Your task to perform on an android device: Open notification settings Image 0: 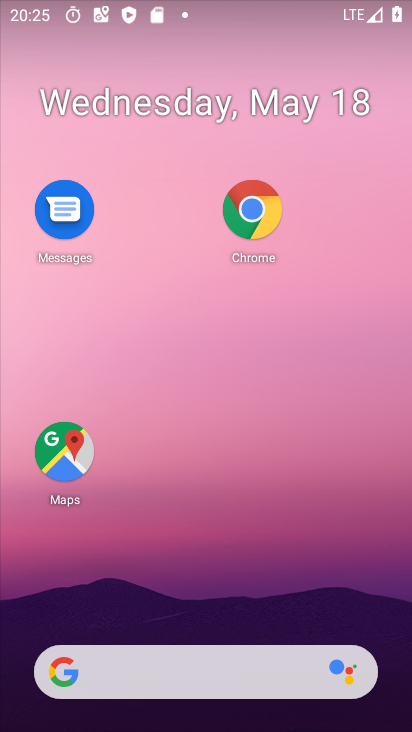
Step 0: drag from (173, 536) to (159, 145)
Your task to perform on an android device: Open notification settings Image 1: 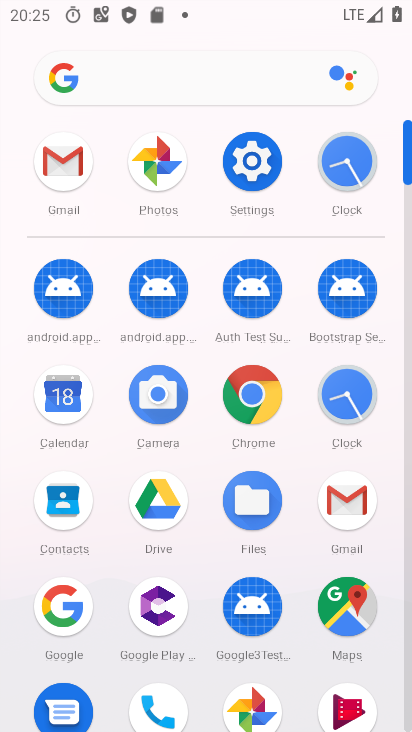
Step 1: click (259, 178)
Your task to perform on an android device: Open notification settings Image 2: 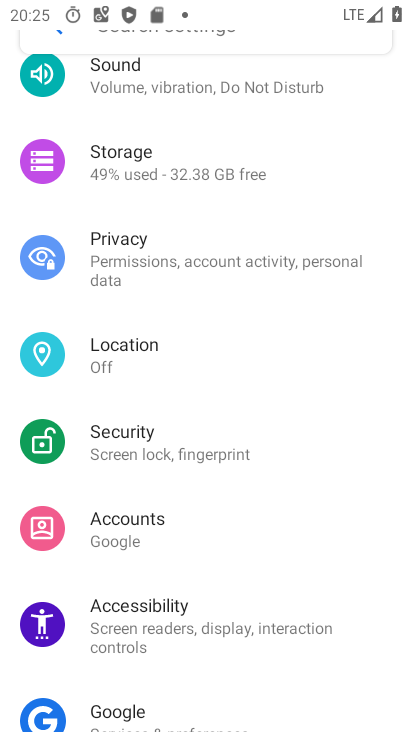
Step 2: drag from (259, 178) to (268, 676)
Your task to perform on an android device: Open notification settings Image 3: 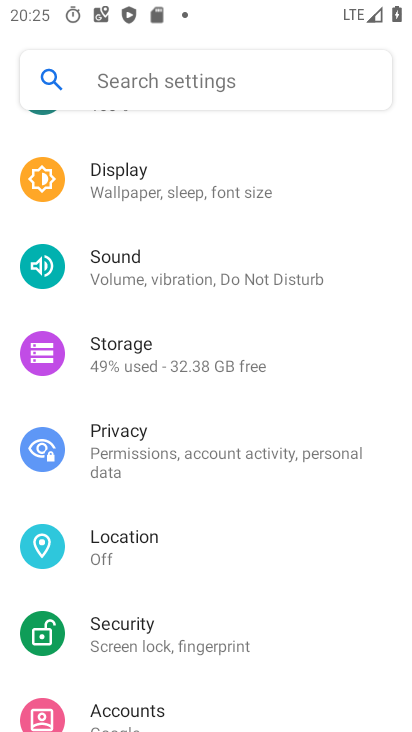
Step 3: drag from (162, 150) to (226, 614)
Your task to perform on an android device: Open notification settings Image 4: 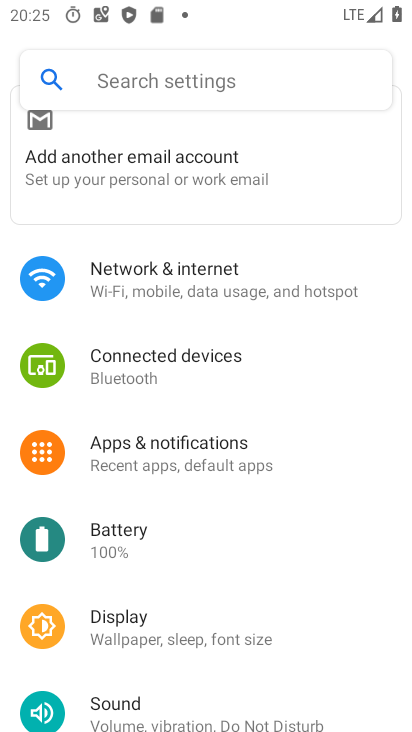
Step 4: click (118, 452)
Your task to perform on an android device: Open notification settings Image 5: 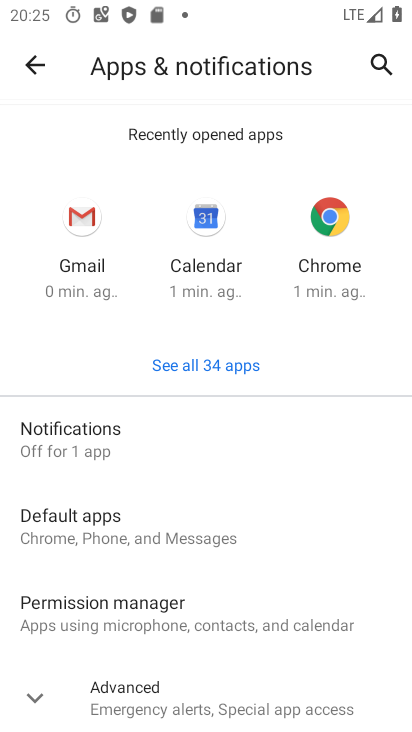
Step 5: task complete